Your task to perform on an android device: Go to wifi settings Image 0: 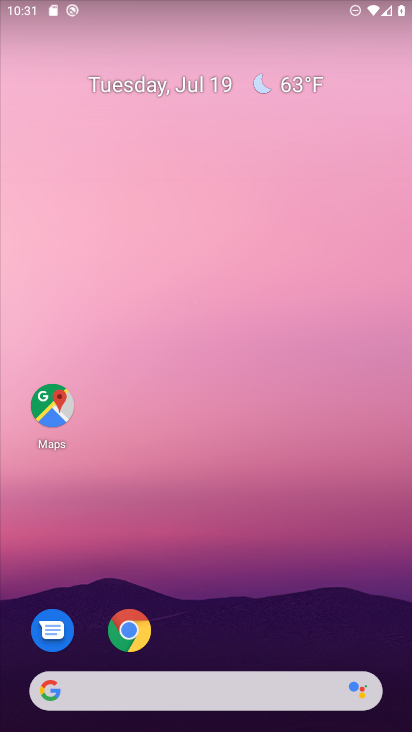
Step 0: drag from (193, 702) to (275, 218)
Your task to perform on an android device: Go to wifi settings Image 1: 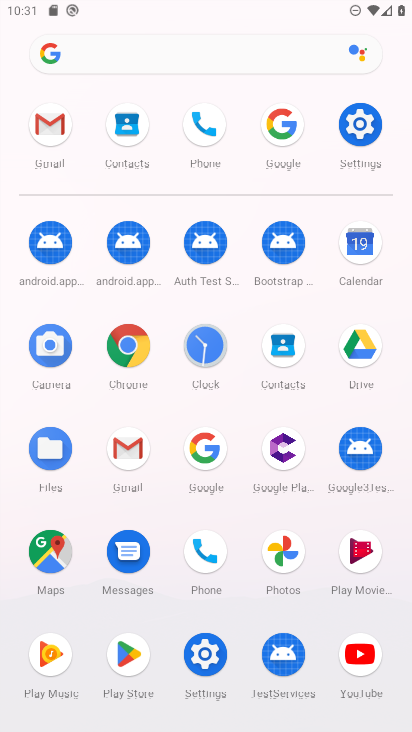
Step 1: click (360, 125)
Your task to perform on an android device: Go to wifi settings Image 2: 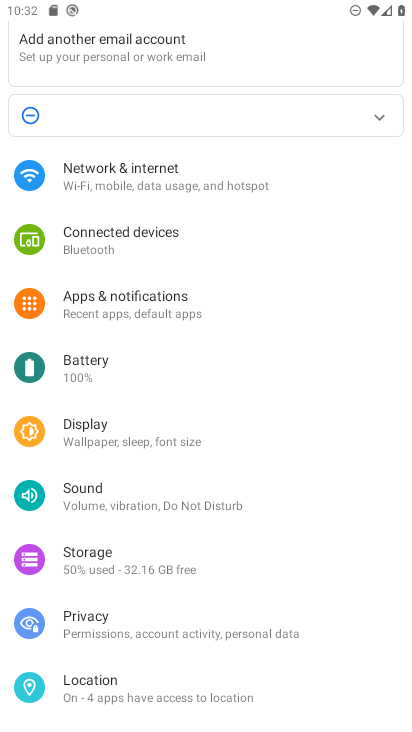
Step 2: click (130, 178)
Your task to perform on an android device: Go to wifi settings Image 3: 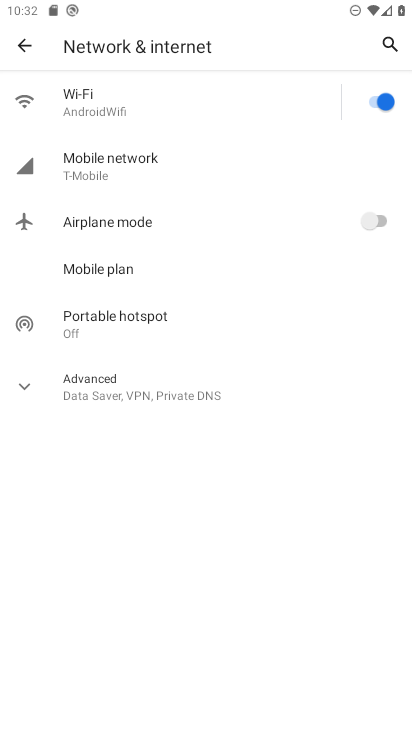
Step 3: click (100, 97)
Your task to perform on an android device: Go to wifi settings Image 4: 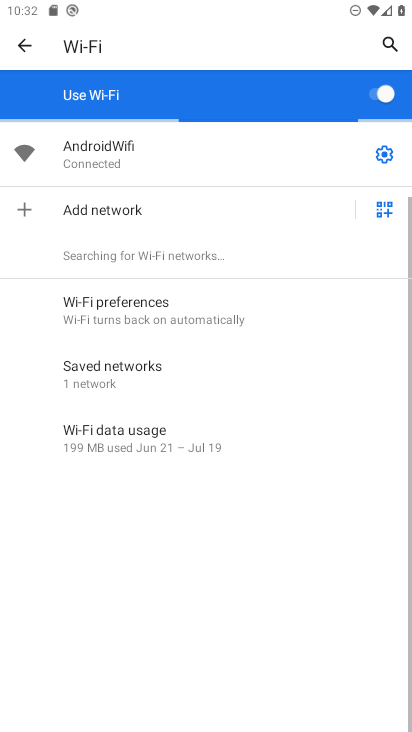
Step 4: click (380, 156)
Your task to perform on an android device: Go to wifi settings Image 5: 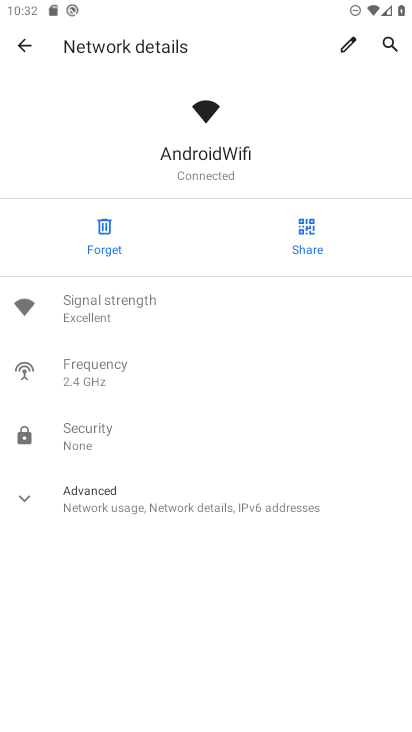
Step 5: task complete